Your task to perform on an android device: Clear the cart on newegg.com. Search for "razer thresher" on newegg.com, select the first entry, add it to the cart, then select checkout. Image 0: 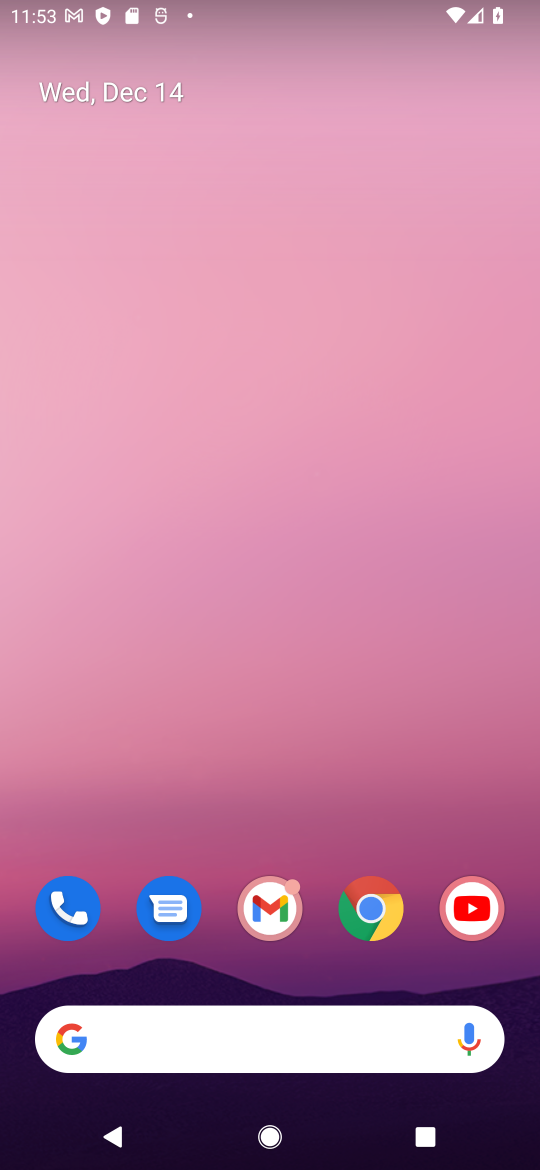
Step 0: click (371, 912)
Your task to perform on an android device: Clear the cart on newegg.com. Search for "razer thresher" on newegg.com, select the first entry, add it to the cart, then select checkout. Image 1: 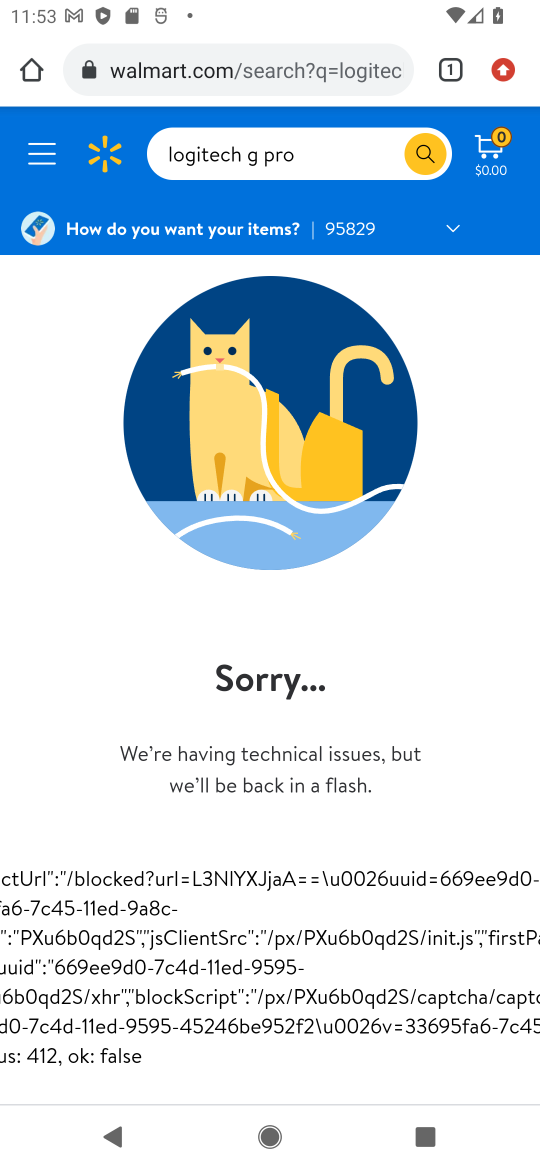
Step 1: click (236, 82)
Your task to perform on an android device: Clear the cart on newegg.com. Search for "razer thresher" on newegg.com, select the first entry, add it to the cart, then select checkout. Image 2: 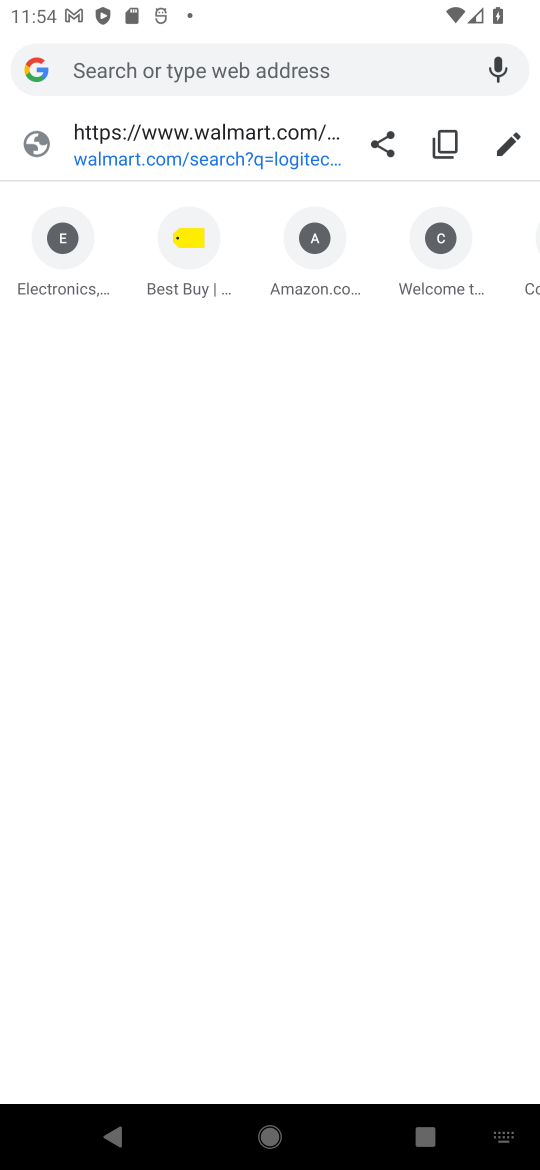
Step 2: type "newegg.com"
Your task to perform on an android device: Clear the cart on newegg.com. Search for "razer thresher" on newegg.com, select the first entry, add it to the cart, then select checkout. Image 3: 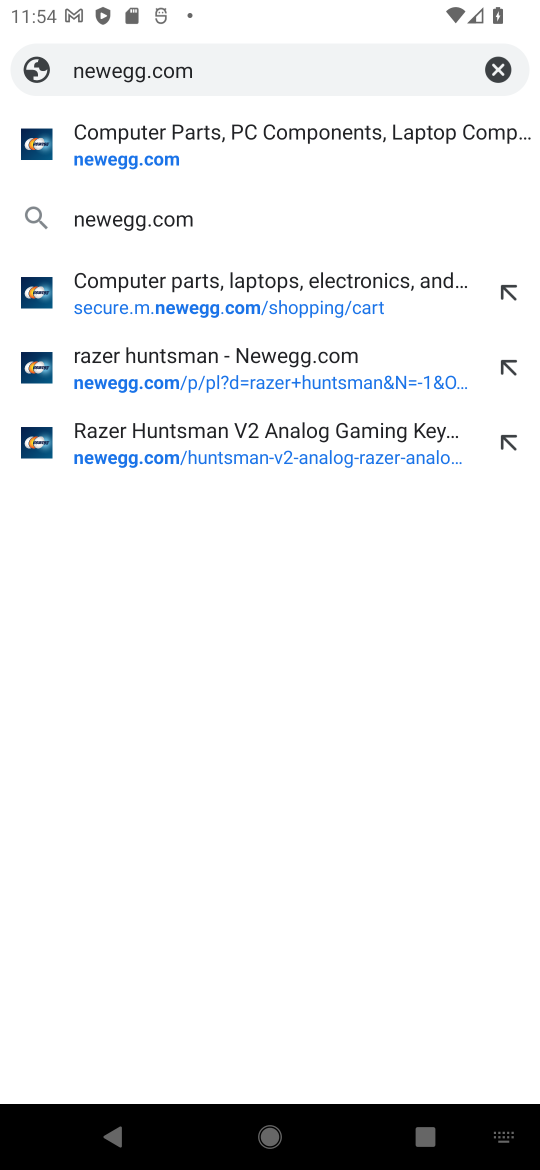
Step 3: click (120, 166)
Your task to perform on an android device: Clear the cart on newegg.com. Search for "razer thresher" on newegg.com, select the first entry, add it to the cart, then select checkout. Image 4: 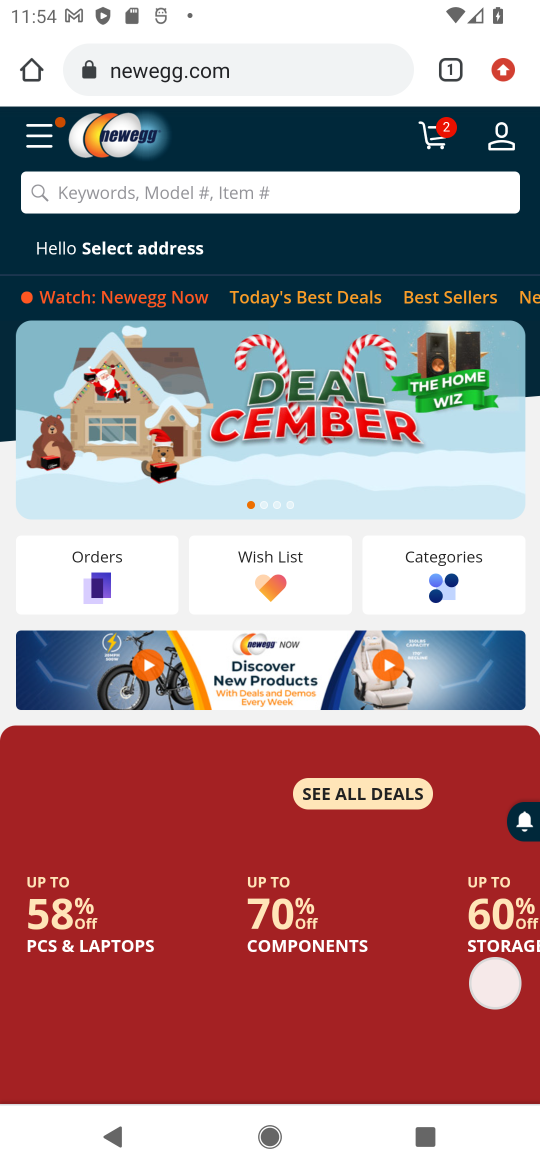
Step 4: click (438, 141)
Your task to perform on an android device: Clear the cart on newegg.com. Search for "razer thresher" on newegg.com, select the first entry, add it to the cart, then select checkout. Image 5: 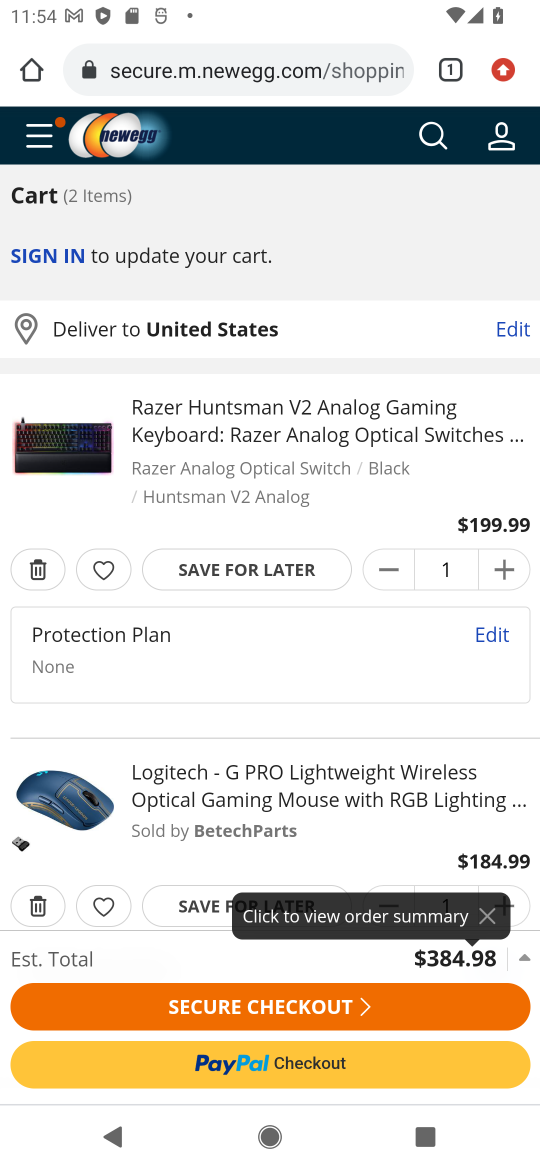
Step 5: click (40, 583)
Your task to perform on an android device: Clear the cart on newegg.com. Search for "razer thresher" on newegg.com, select the first entry, add it to the cart, then select checkout. Image 6: 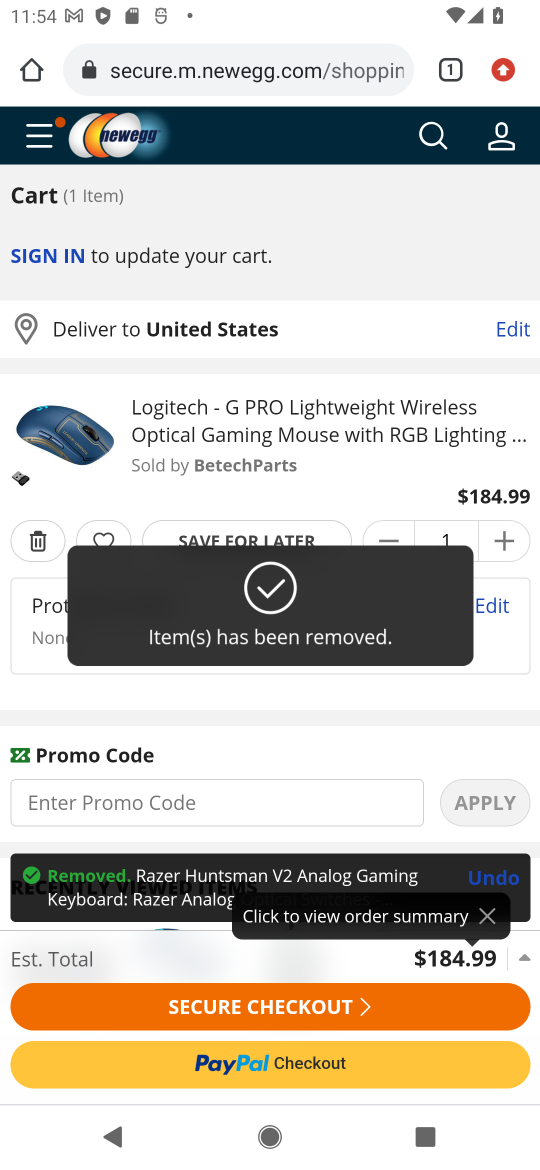
Step 6: click (41, 543)
Your task to perform on an android device: Clear the cart on newegg.com. Search for "razer thresher" on newegg.com, select the first entry, add it to the cart, then select checkout. Image 7: 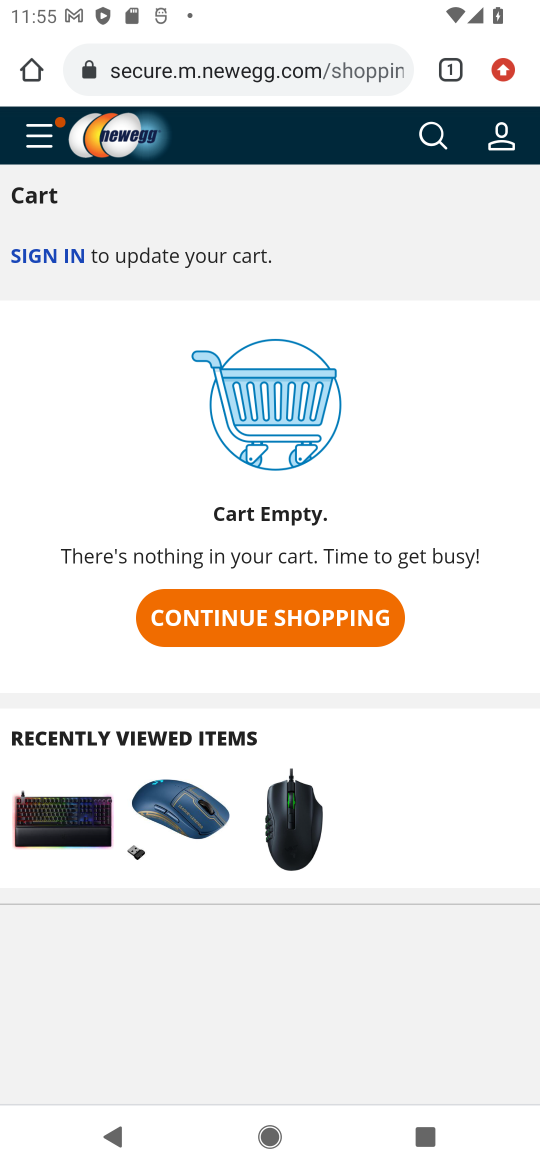
Step 7: click (433, 134)
Your task to perform on an android device: Clear the cart on newegg.com. Search for "razer thresher" on newegg.com, select the first entry, add it to the cart, then select checkout. Image 8: 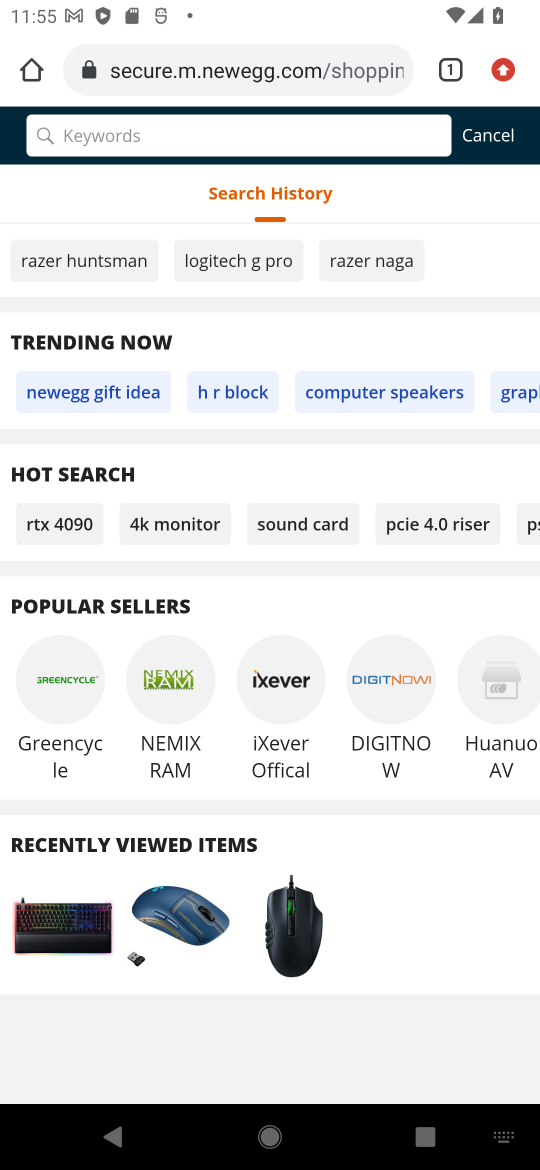
Step 8: type "razer thresher"
Your task to perform on an android device: Clear the cart on newegg.com. Search for "razer thresher" on newegg.com, select the first entry, add it to the cart, then select checkout. Image 9: 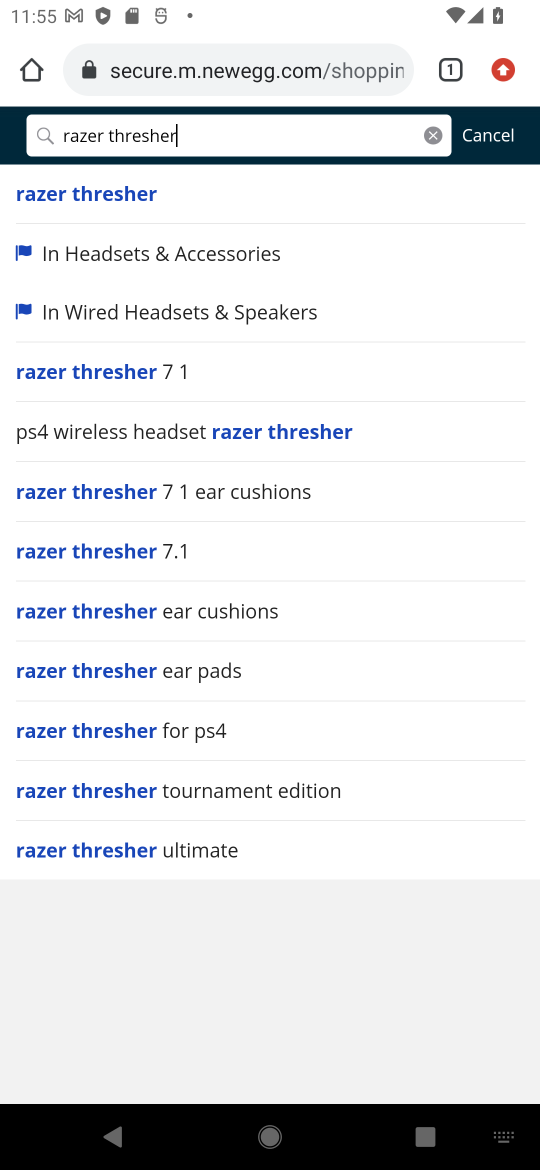
Step 9: click (96, 202)
Your task to perform on an android device: Clear the cart on newegg.com. Search for "razer thresher" on newegg.com, select the first entry, add it to the cart, then select checkout. Image 10: 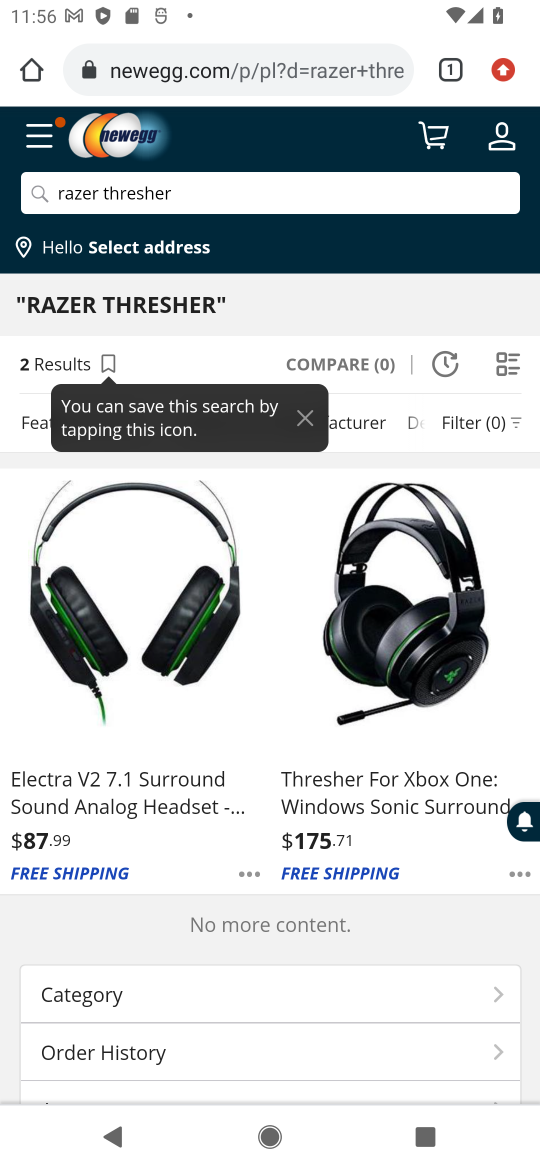
Step 10: task complete